Your task to perform on an android device: Open the phone app and click the voicemail tab. Image 0: 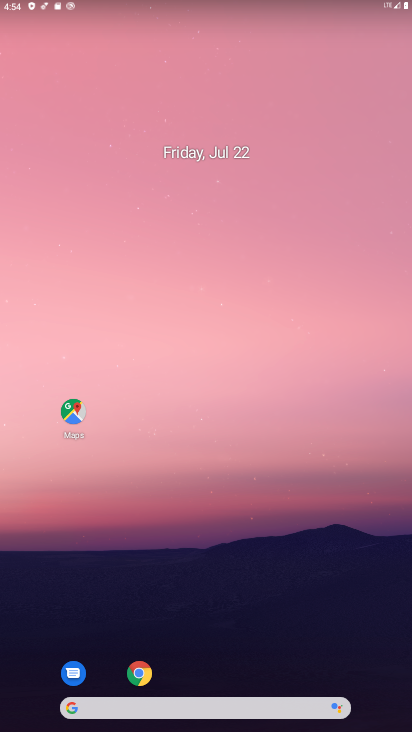
Step 0: drag from (240, 581) to (301, 10)
Your task to perform on an android device: Open the phone app and click the voicemail tab. Image 1: 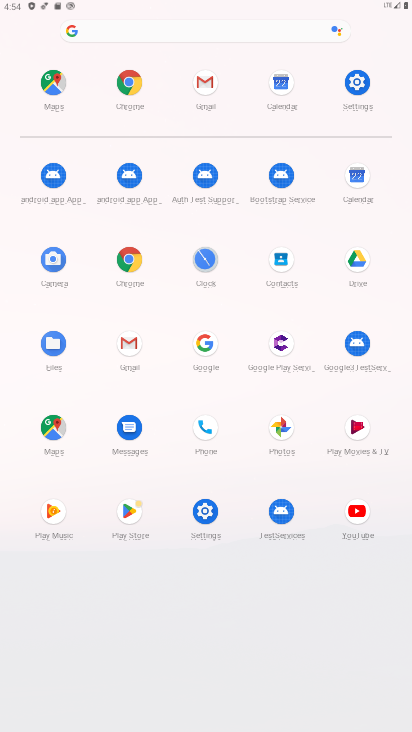
Step 1: click (201, 428)
Your task to perform on an android device: Open the phone app and click the voicemail tab. Image 2: 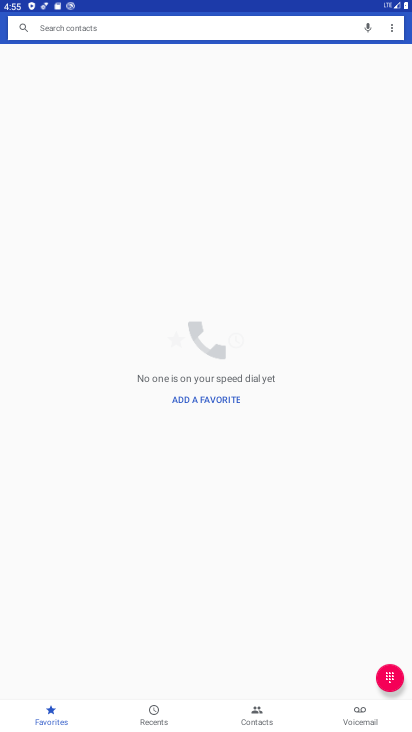
Step 2: click (359, 722)
Your task to perform on an android device: Open the phone app and click the voicemail tab. Image 3: 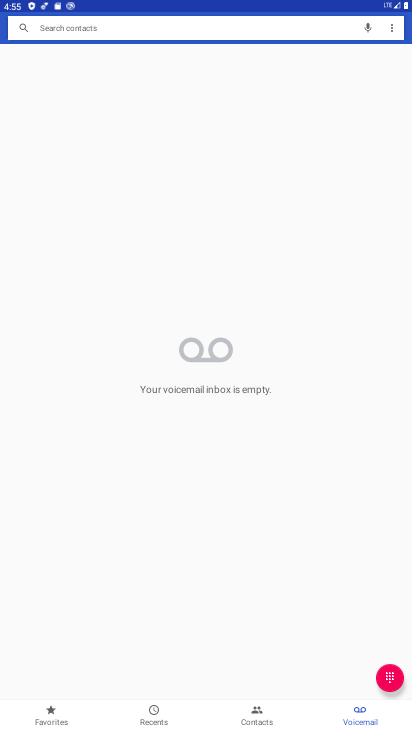
Step 3: task complete